Your task to perform on an android device: install app "Microsoft Excel" Image 0: 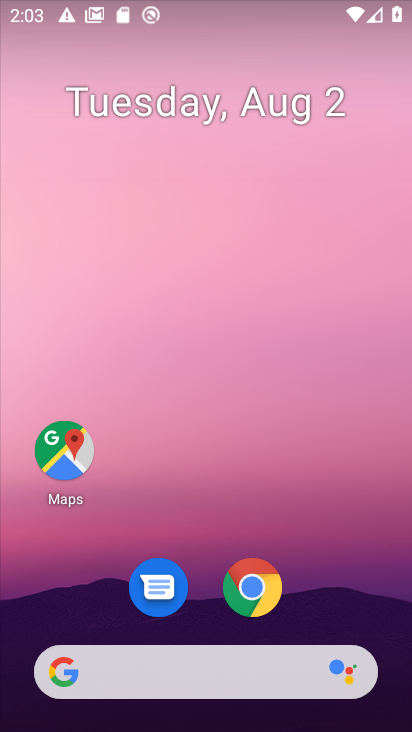
Step 0: drag from (195, 507) to (203, 196)
Your task to perform on an android device: install app "Microsoft Excel" Image 1: 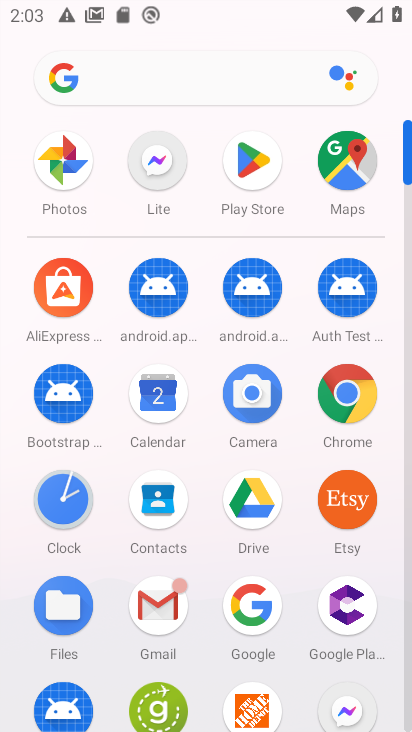
Step 1: click (237, 162)
Your task to perform on an android device: install app "Microsoft Excel" Image 2: 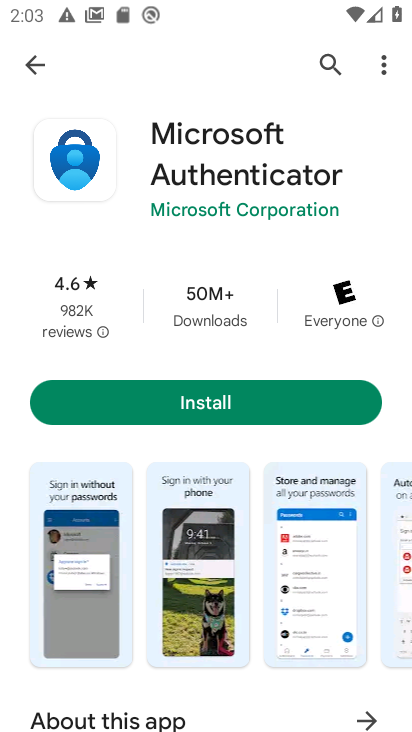
Step 2: drag from (324, 68) to (377, 68)
Your task to perform on an android device: install app "Microsoft Excel" Image 3: 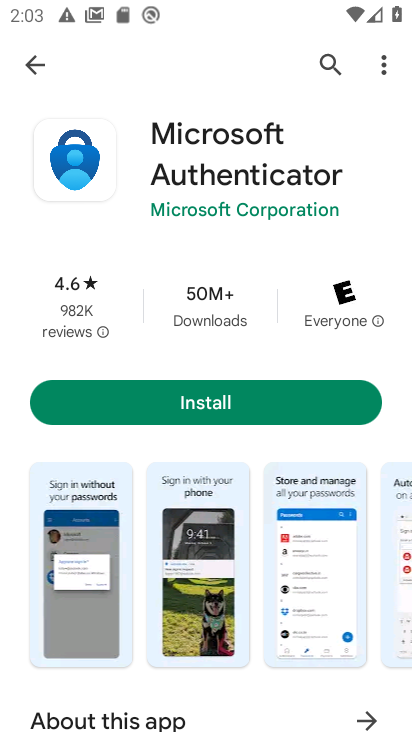
Step 3: click (328, 70)
Your task to perform on an android device: install app "Microsoft Excel" Image 4: 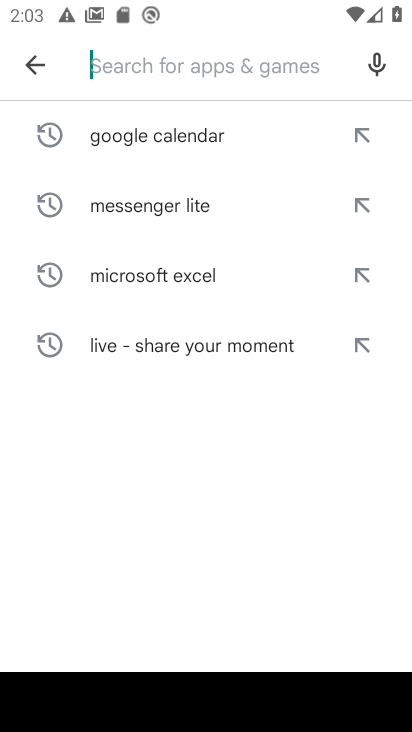
Step 4: type "Microsoft Excel"
Your task to perform on an android device: install app "Microsoft Excel" Image 5: 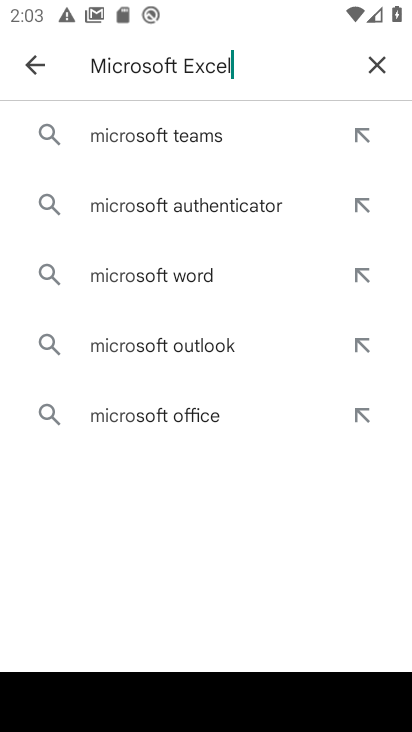
Step 5: type ""
Your task to perform on an android device: install app "Microsoft Excel" Image 6: 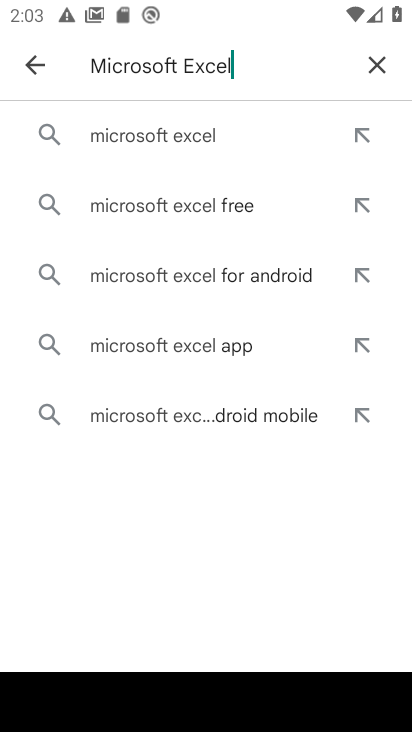
Step 6: click (203, 147)
Your task to perform on an android device: install app "Microsoft Excel" Image 7: 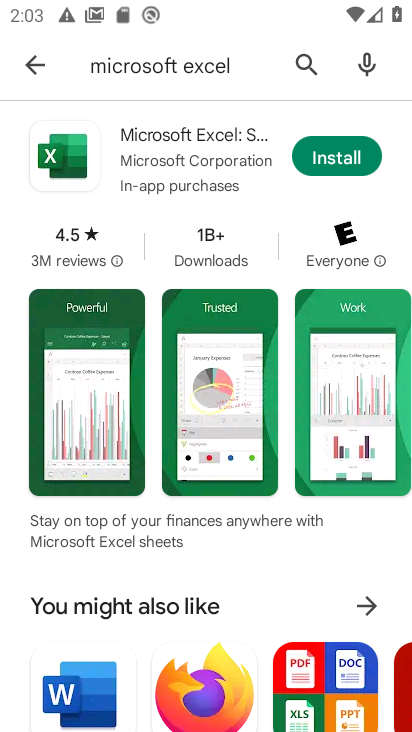
Step 7: click (353, 165)
Your task to perform on an android device: install app "Microsoft Excel" Image 8: 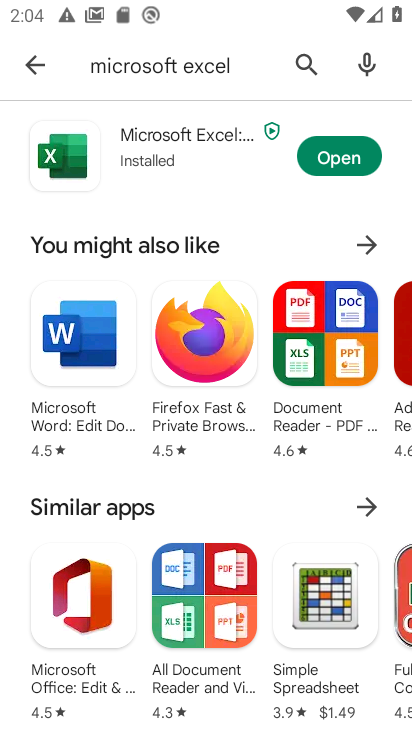
Step 8: task complete